Your task to perform on an android device: change keyboard looks Image 0: 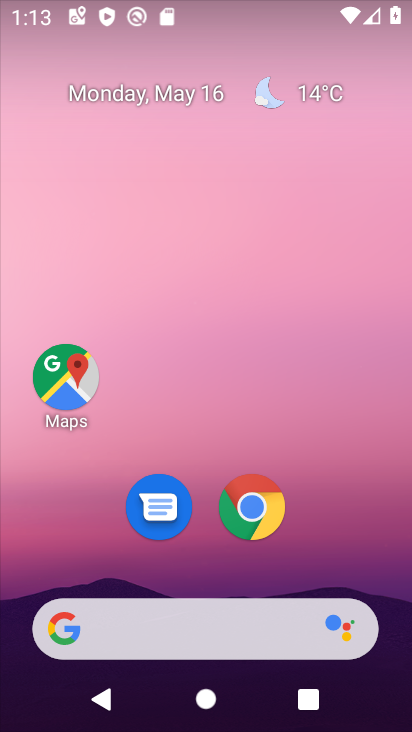
Step 0: drag from (218, 581) to (210, 127)
Your task to perform on an android device: change keyboard looks Image 1: 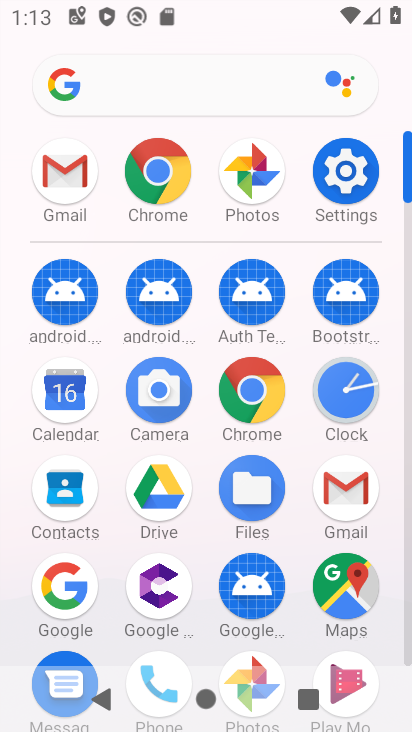
Step 1: click (373, 193)
Your task to perform on an android device: change keyboard looks Image 2: 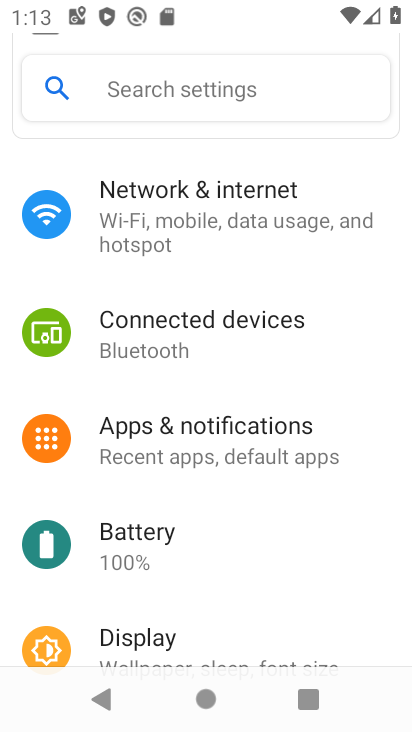
Step 2: drag from (265, 583) to (306, 168)
Your task to perform on an android device: change keyboard looks Image 3: 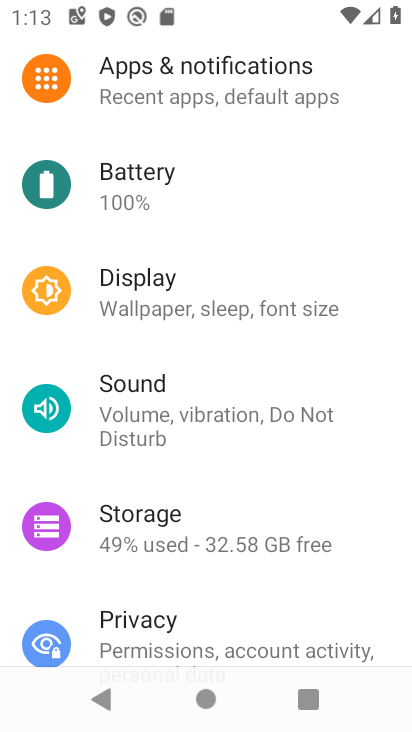
Step 3: drag from (242, 496) to (287, 209)
Your task to perform on an android device: change keyboard looks Image 4: 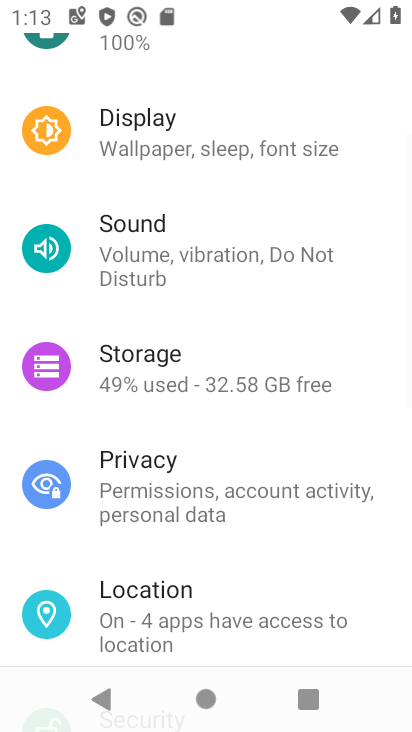
Step 4: drag from (227, 529) to (311, 186)
Your task to perform on an android device: change keyboard looks Image 5: 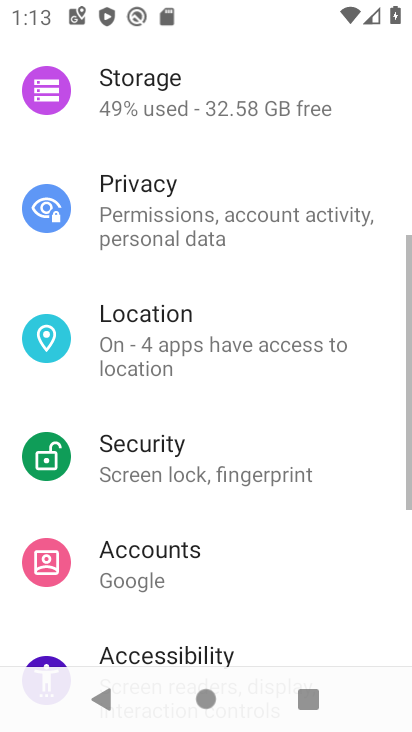
Step 5: drag from (234, 505) to (295, 230)
Your task to perform on an android device: change keyboard looks Image 6: 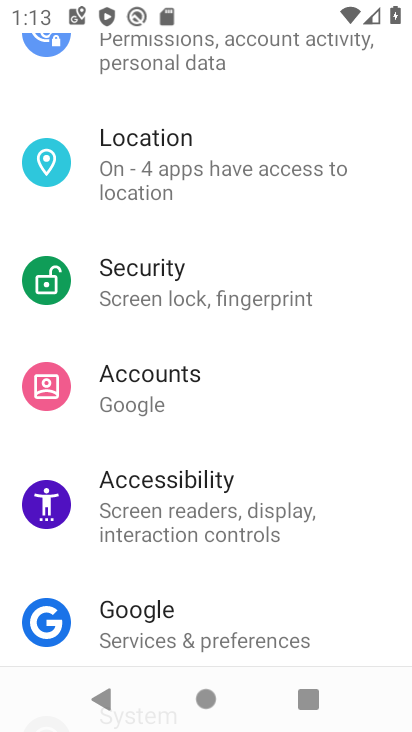
Step 6: drag from (205, 584) to (210, 282)
Your task to perform on an android device: change keyboard looks Image 7: 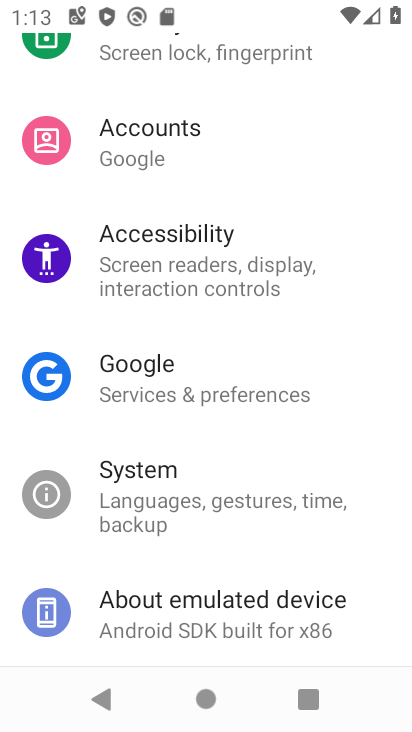
Step 7: click (236, 509)
Your task to perform on an android device: change keyboard looks Image 8: 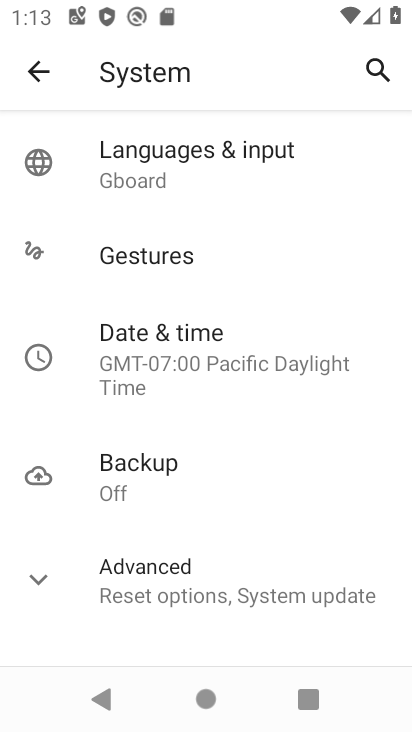
Step 8: click (203, 189)
Your task to perform on an android device: change keyboard looks Image 9: 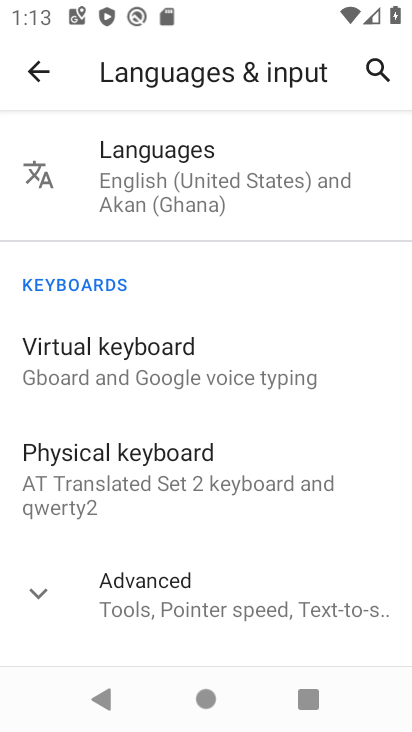
Step 9: click (296, 188)
Your task to perform on an android device: change keyboard looks Image 10: 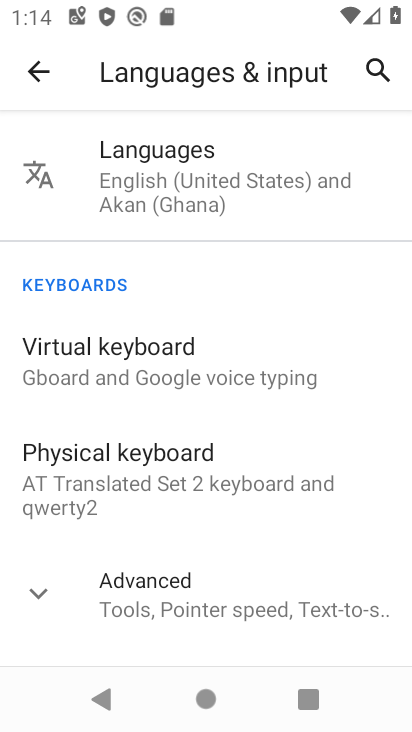
Step 10: click (294, 195)
Your task to perform on an android device: change keyboard looks Image 11: 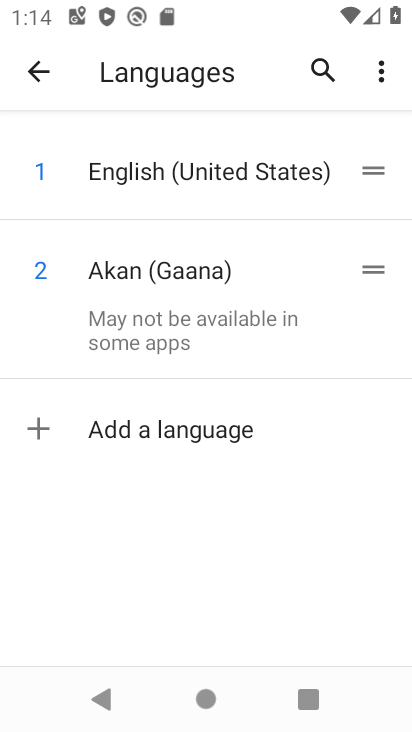
Step 11: click (217, 420)
Your task to perform on an android device: change keyboard looks Image 12: 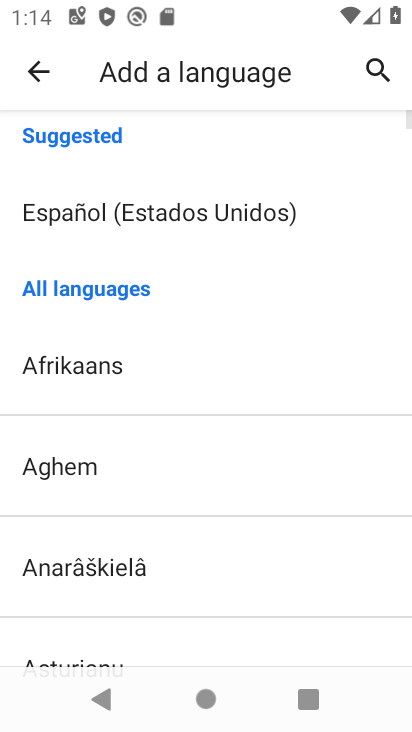
Step 12: click (192, 583)
Your task to perform on an android device: change keyboard looks Image 13: 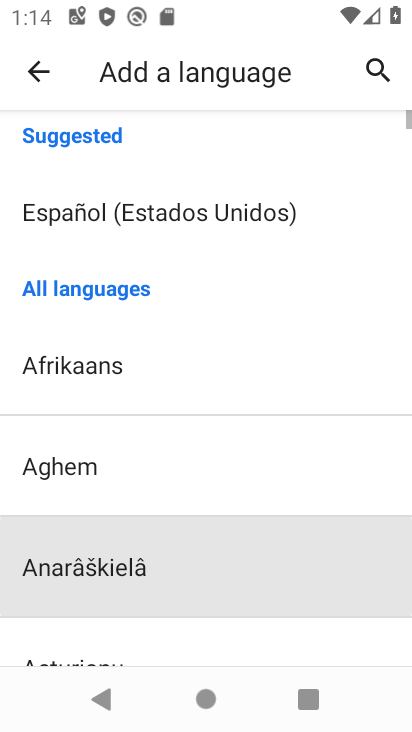
Step 13: task complete